Your task to perform on an android device: Toggle the flashlight Image 0: 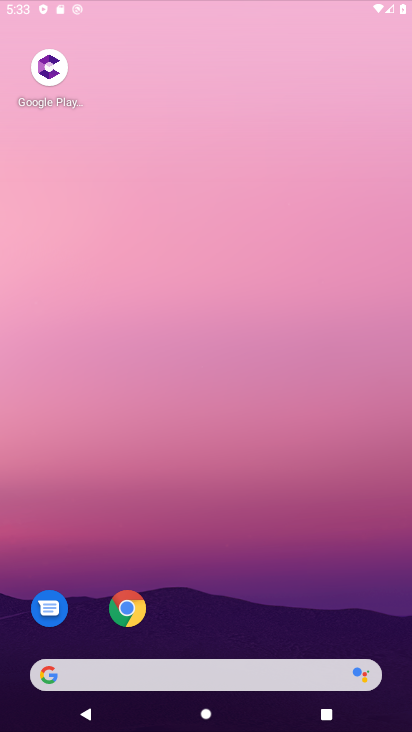
Step 0: press home button
Your task to perform on an android device: Toggle the flashlight Image 1: 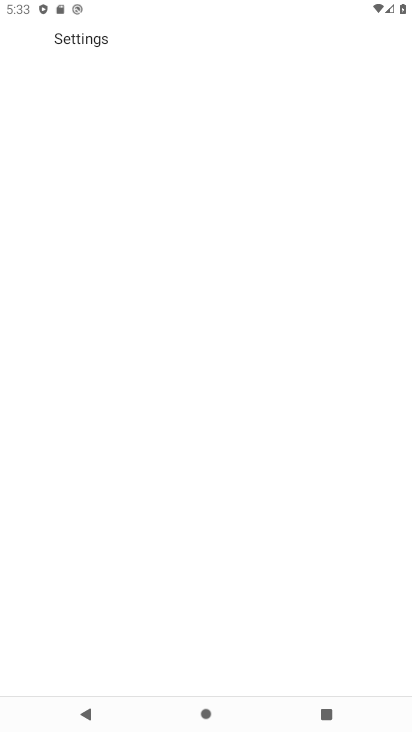
Step 1: task complete